Your task to perform on an android device: turn off wifi Image 0: 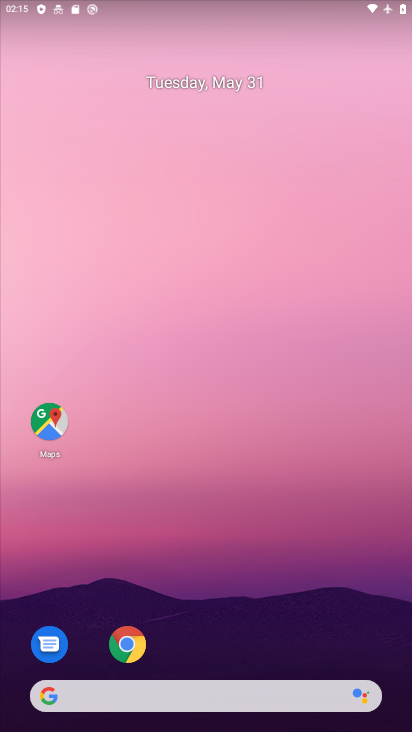
Step 0: click (239, 149)
Your task to perform on an android device: turn off wifi Image 1: 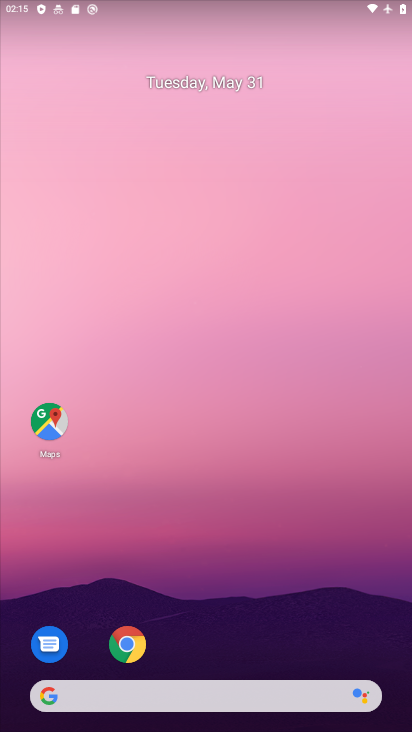
Step 1: drag from (308, 545) to (218, 271)
Your task to perform on an android device: turn off wifi Image 2: 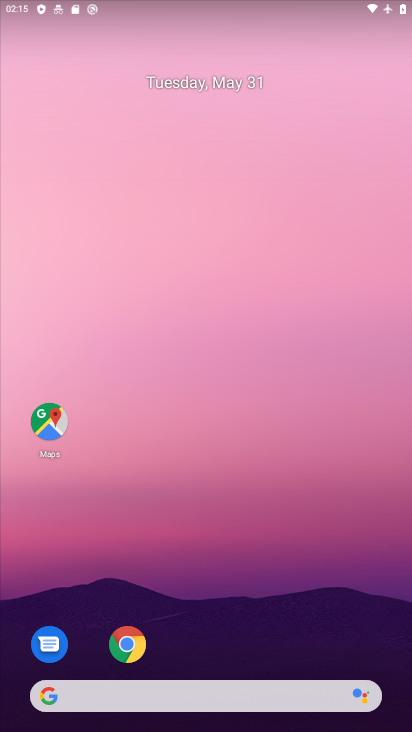
Step 2: drag from (282, 636) to (186, 152)
Your task to perform on an android device: turn off wifi Image 3: 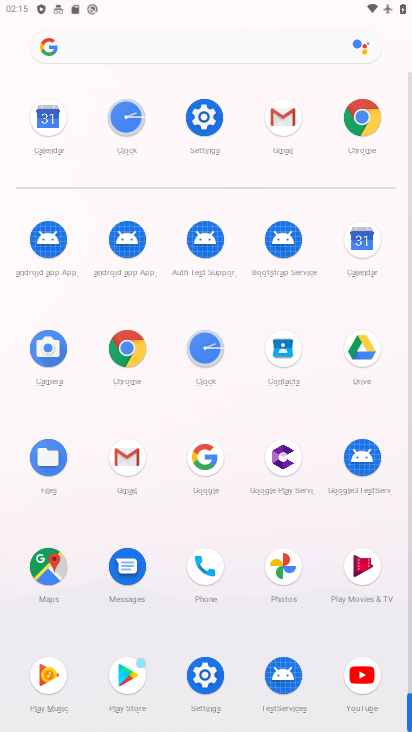
Step 3: click (199, 118)
Your task to perform on an android device: turn off wifi Image 4: 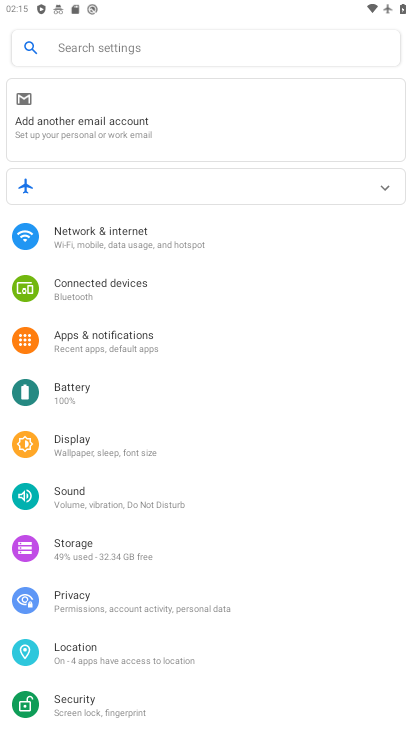
Step 4: click (108, 232)
Your task to perform on an android device: turn off wifi Image 5: 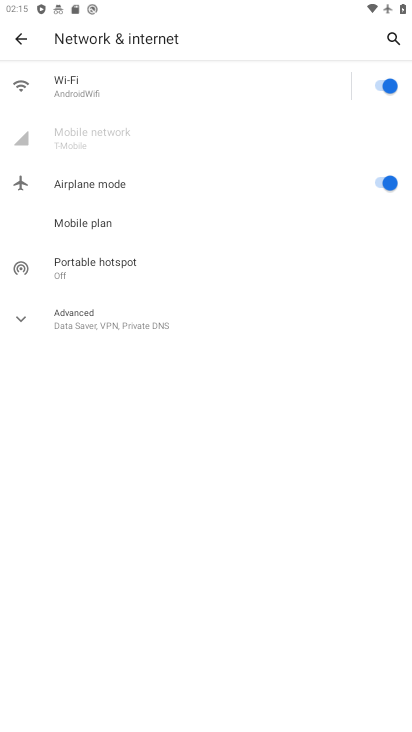
Step 5: click (385, 89)
Your task to perform on an android device: turn off wifi Image 6: 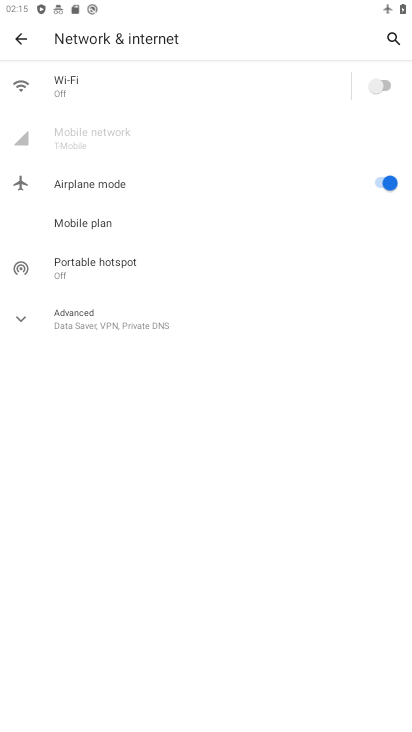
Step 6: task complete